Your task to perform on an android device: turn off notifications in google photos Image 0: 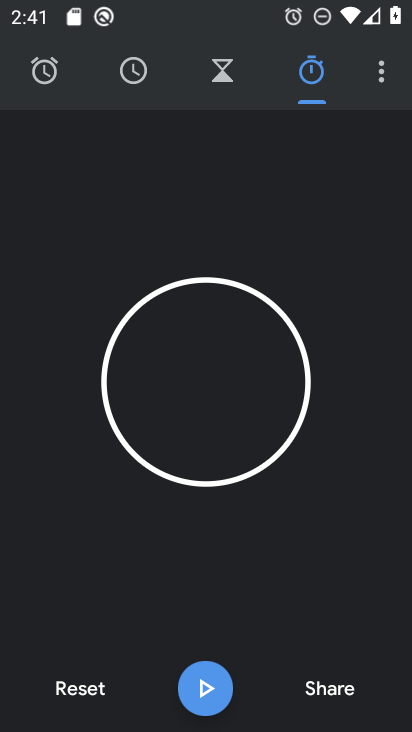
Step 0: press home button
Your task to perform on an android device: turn off notifications in google photos Image 1: 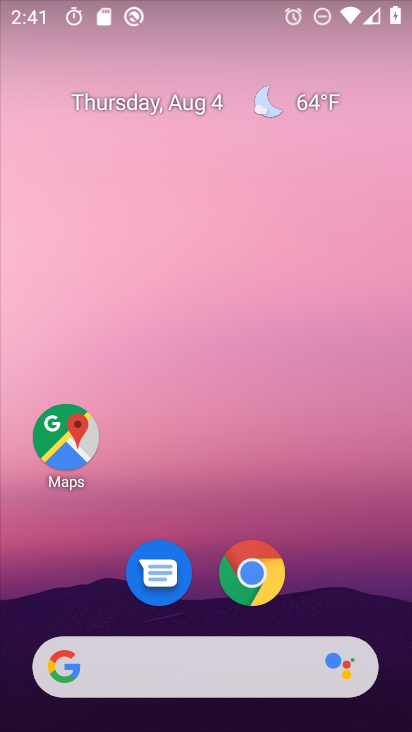
Step 1: drag from (338, 585) to (353, 63)
Your task to perform on an android device: turn off notifications in google photos Image 2: 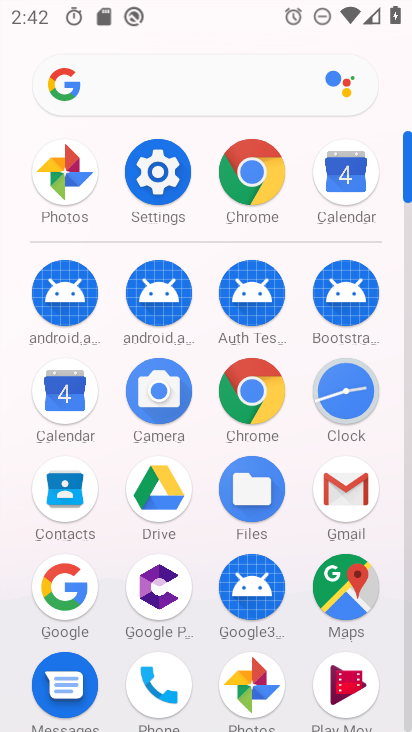
Step 2: click (241, 686)
Your task to perform on an android device: turn off notifications in google photos Image 3: 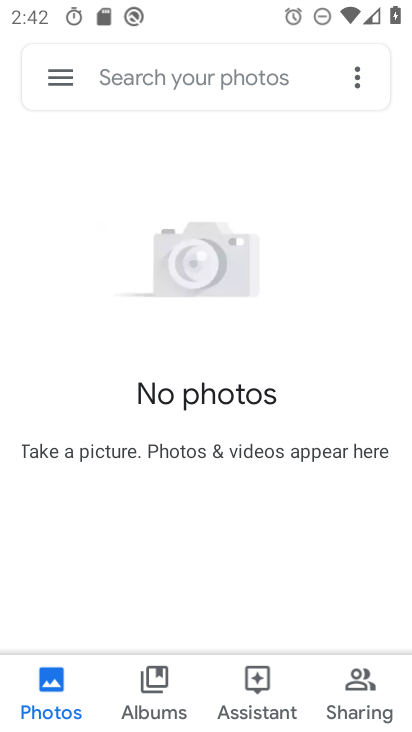
Step 3: click (57, 77)
Your task to perform on an android device: turn off notifications in google photos Image 4: 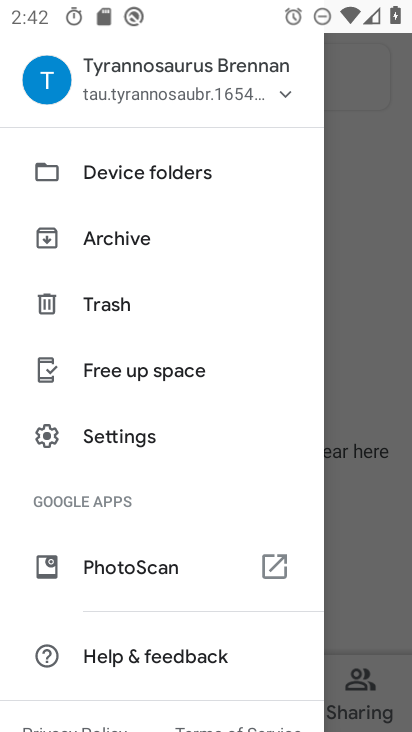
Step 4: click (133, 427)
Your task to perform on an android device: turn off notifications in google photos Image 5: 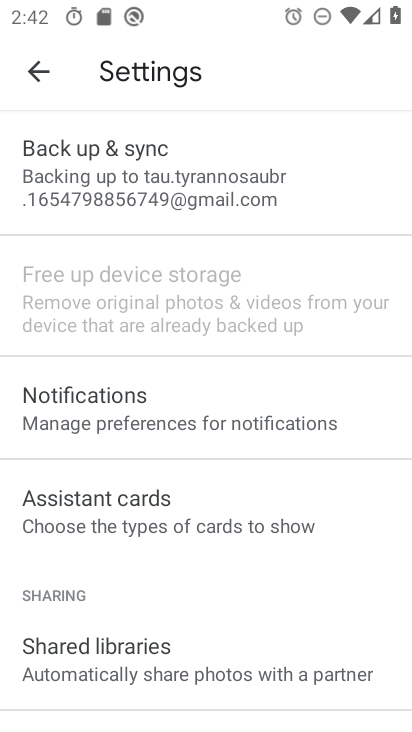
Step 5: drag from (250, 612) to (268, 465)
Your task to perform on an android device: turn off notifications in google photos Image 6: 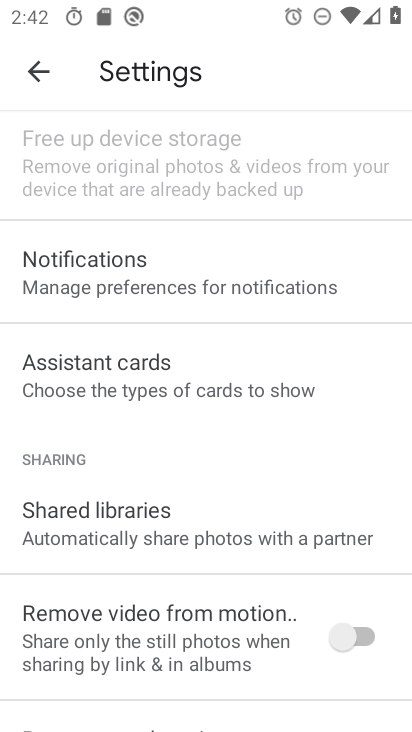
Step 6: click (218, 273)
Your task to perform on an android device: turn off notifications in google photos Image 7: 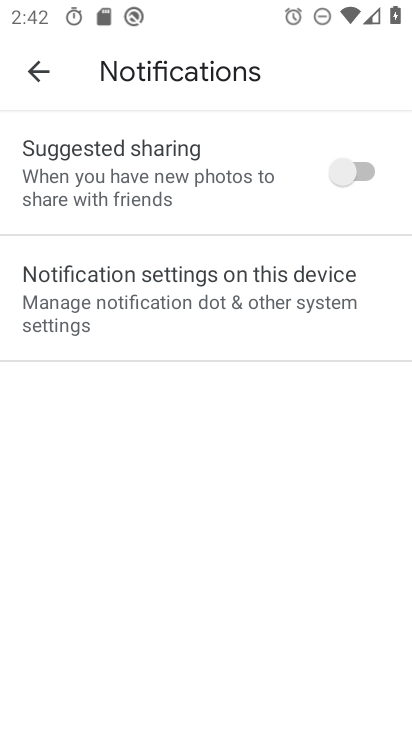
Step 7: click (246, 311)
Your task to perform on an android device: turn off notifications in google photos Image 8: 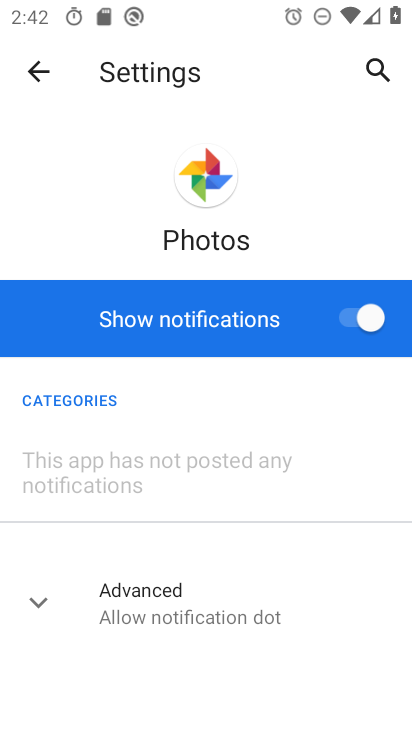
Step 8: click (324, 318)
Your task to perform on an android device: turn off notifications in google photos Image 9: 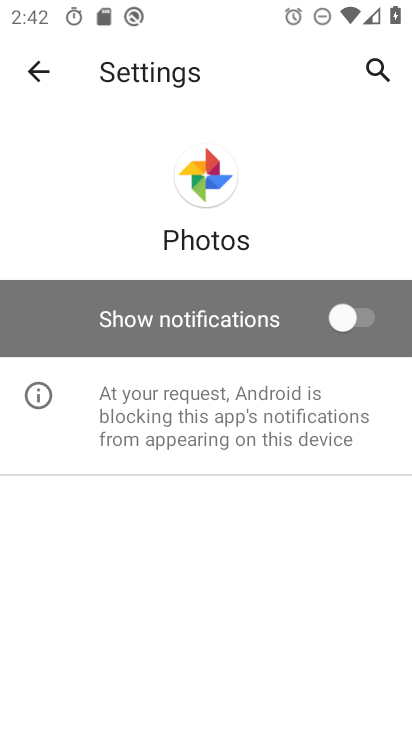
Step 9: task complete